Your task to perform on an android device: Is it going to rain tomorrow? Image 0: 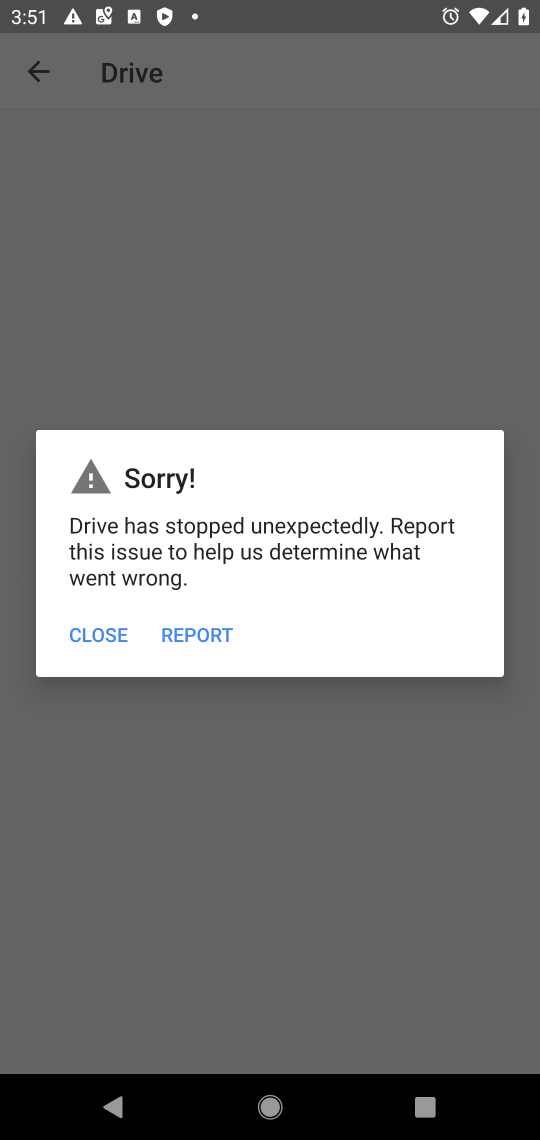
Step 0: press home button
Your task to perform on an android device: Is it going to rain tomorrow? Image 1: 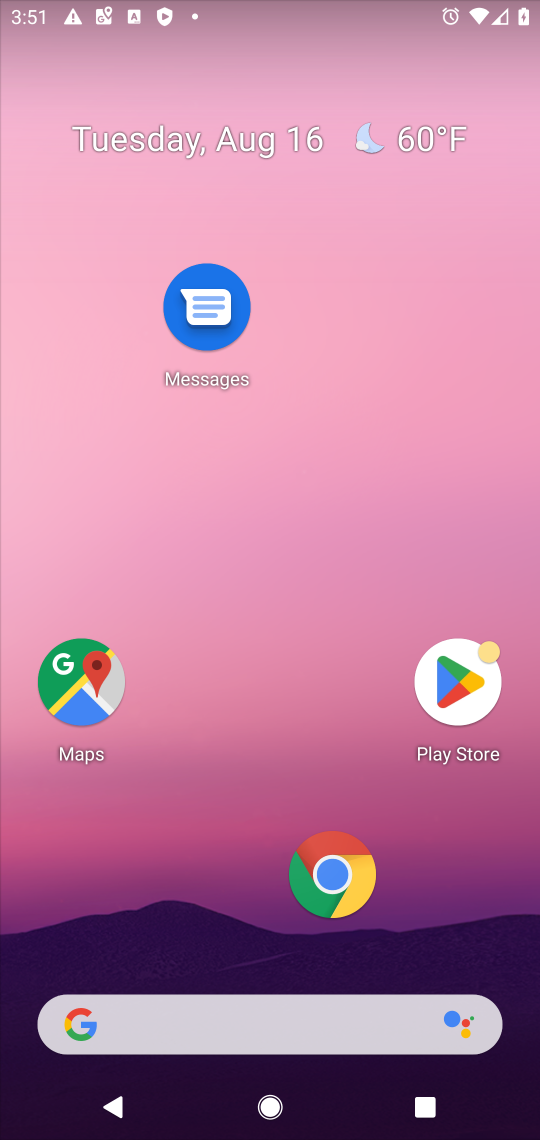
Step 1: click (269, 1027)
Your task to perform on an android device: Is it going to rain tomorrow? Image 2: 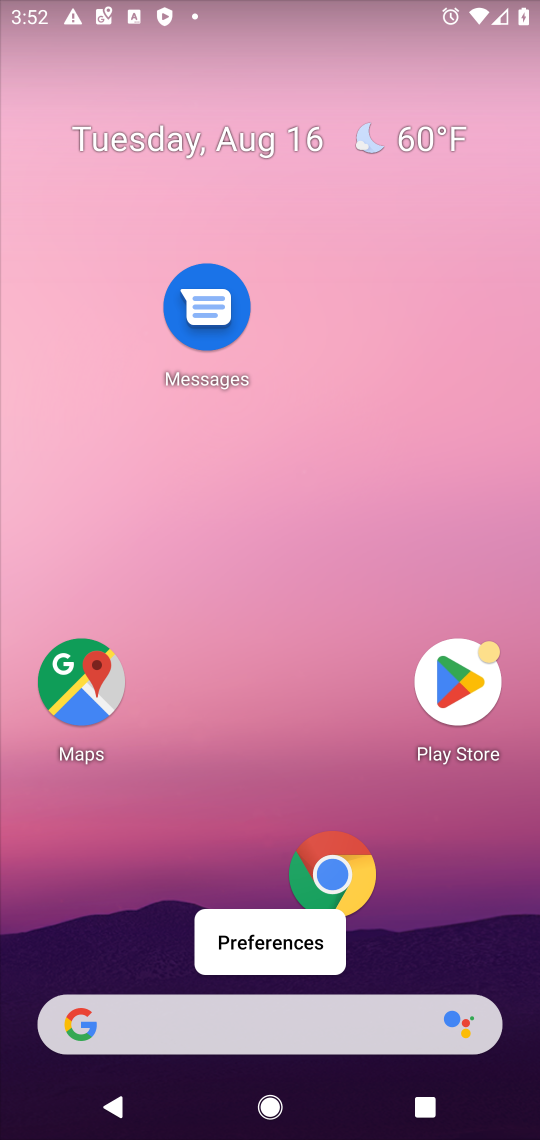
Step 2: click (72, 1031)
Your task to perform on an android device: Is it going to rain tomorrow? Image 3: 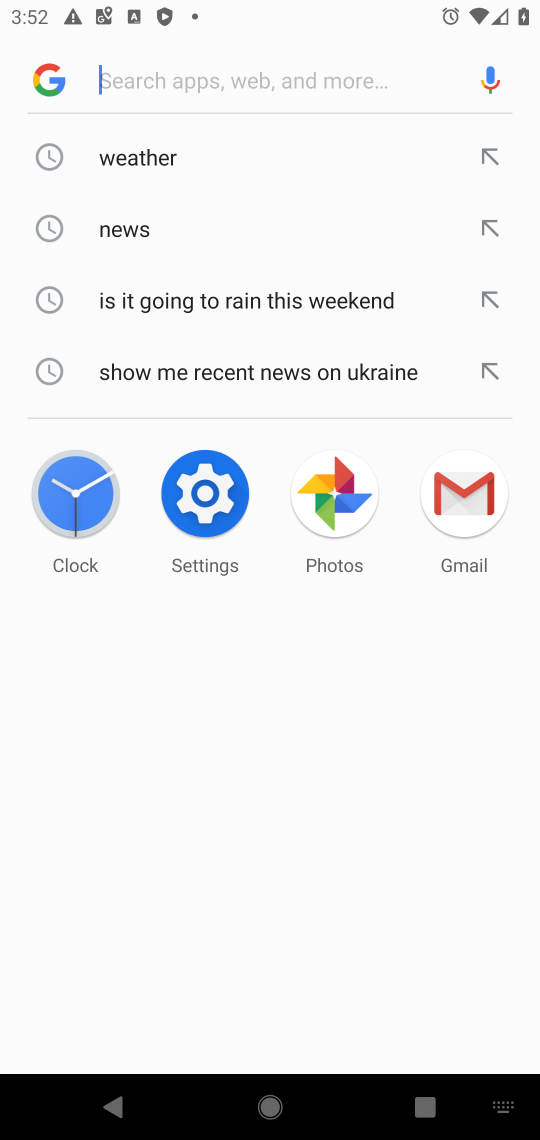
Step 3: click (150, 153)
Your task to perform on an android device: Is it going to rain tomorrow? Image 4: 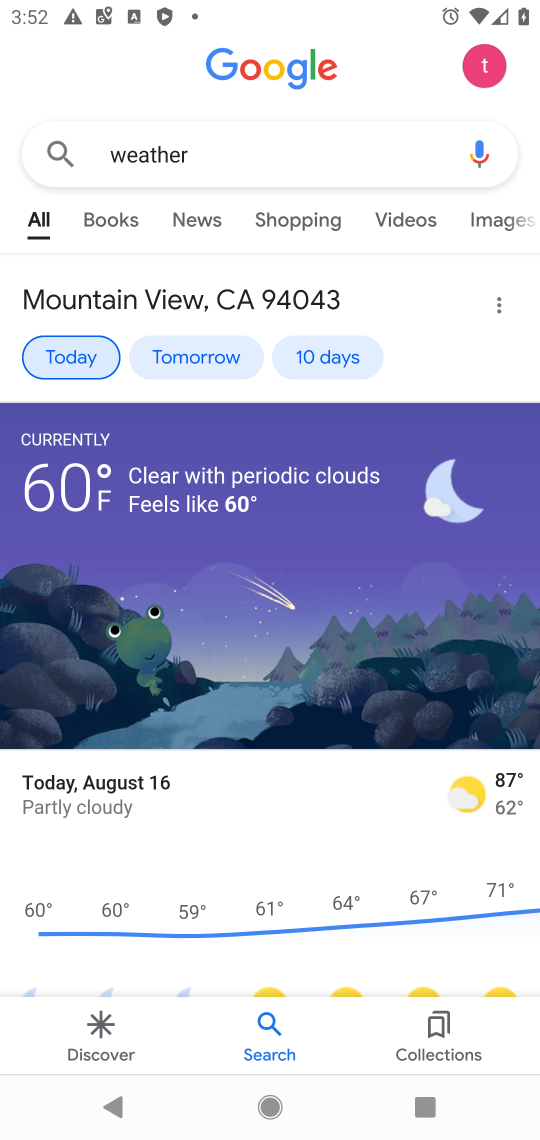
Step 4: task complete